Your task to perform on an android device: change the clock style Image 0: 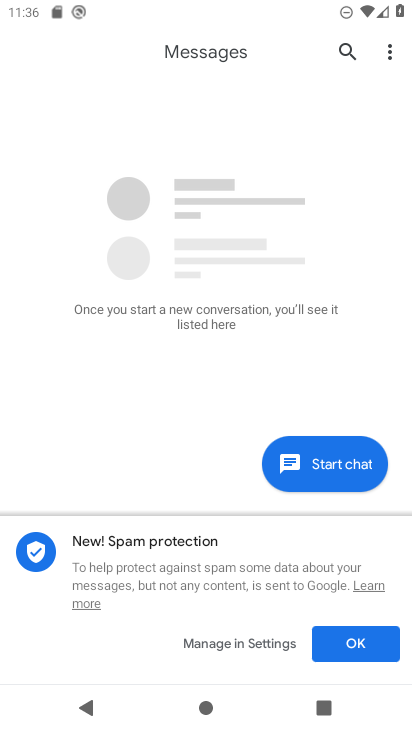
Step 0: press home button
Your task to perform on an android device: change the clock style Image 1: 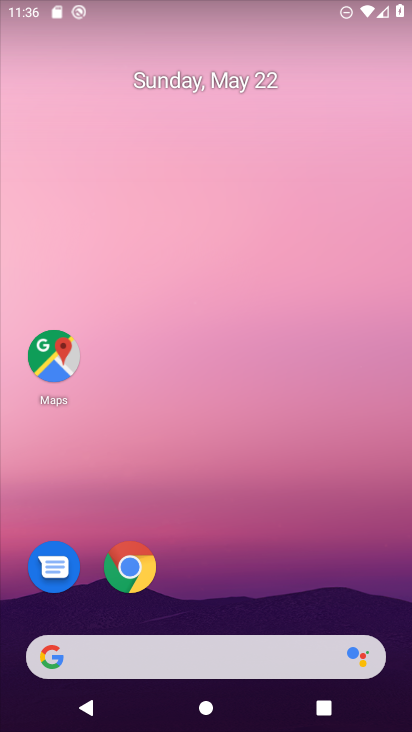
Step 1: drag from (235, 624) to (202, 69)
Your task to perform on an android device: change the clock style Image 2: 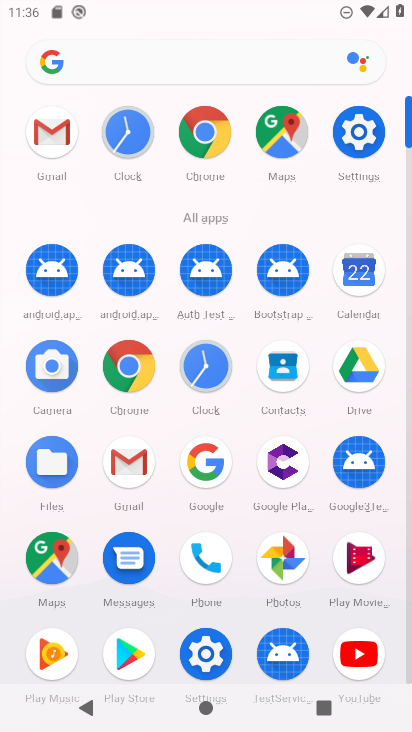
Step 2: click (217, 365)
Your task to perform on an android device: change the clock style Image 3: 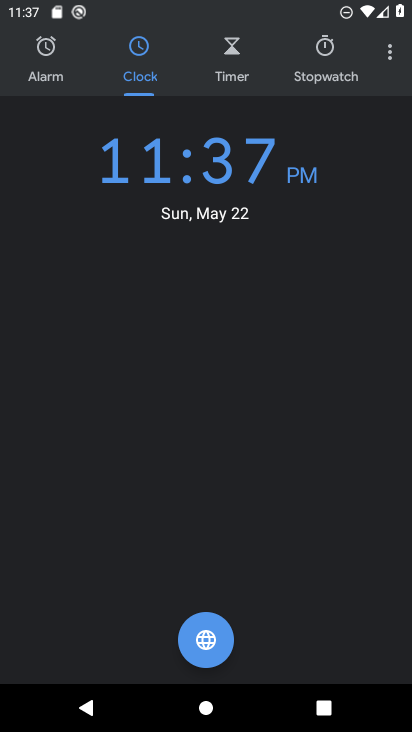
Step 3: click (399, 47)
Your task to perform on an android device: change the clock style Image 4: 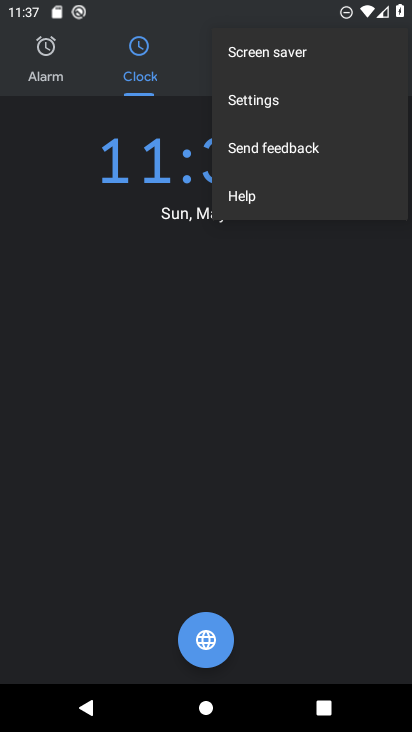
Step 4: click (275, 101)
Your task to perform on an android device: change the clock style Image 5: 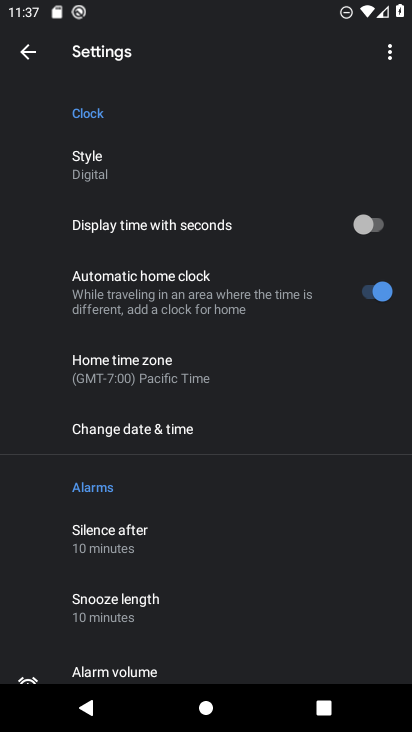
Step 5: click (131, 160)
Your task to perform on an android device: change the clock style Image 6: 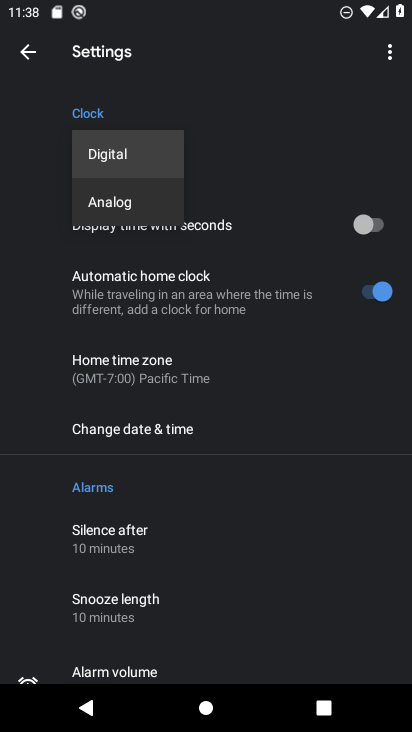
Step 6: click (156, 204)
Your task to perform on an android device: change the clock style Image 7: 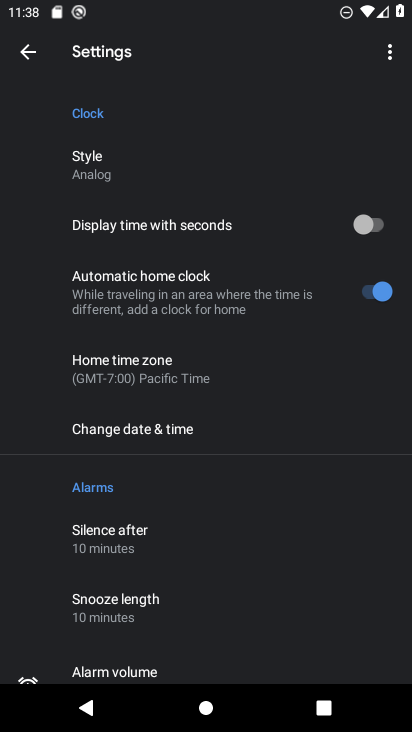
Step 7: task complete